Your task to perform on an android device: turn on wifi Image 0: 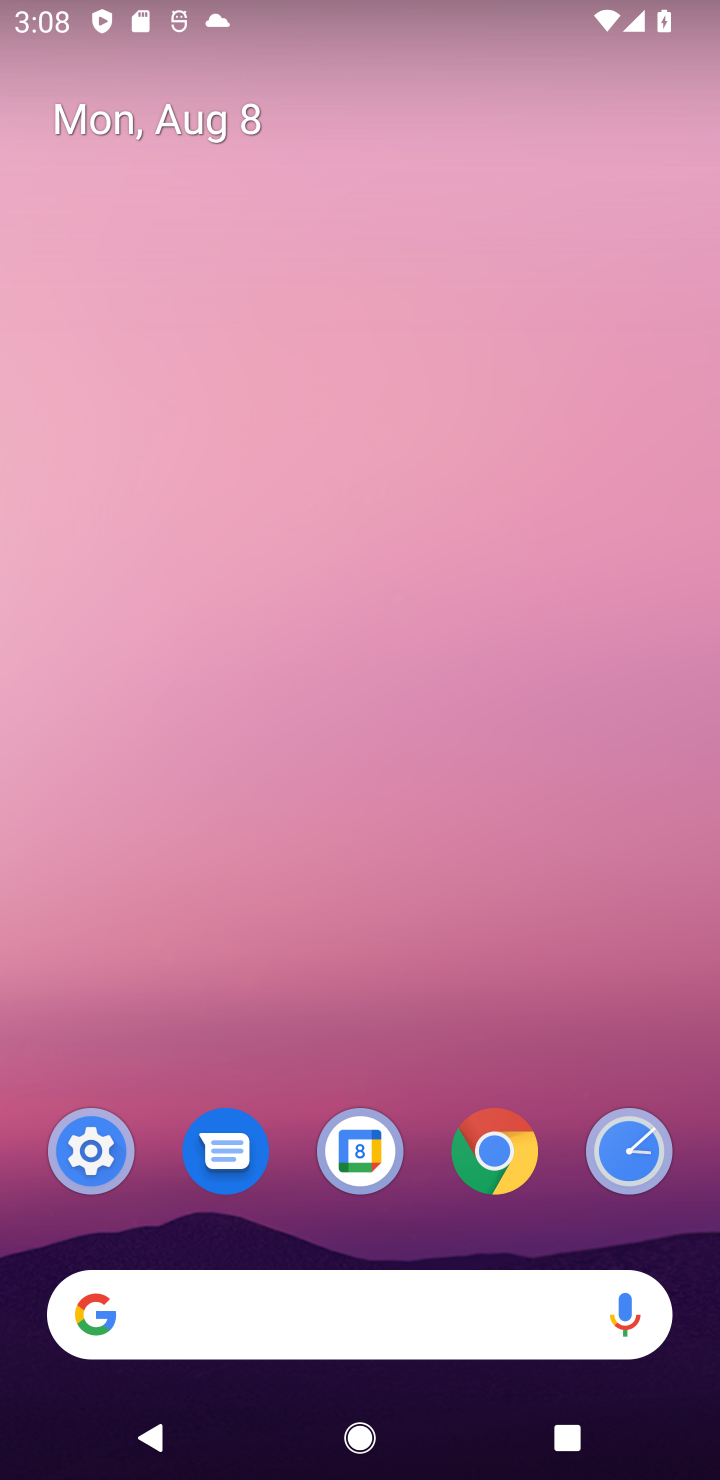
Step 0: click (82, 1141)
Your task to perform on an android device: turn on wifi Image 1: 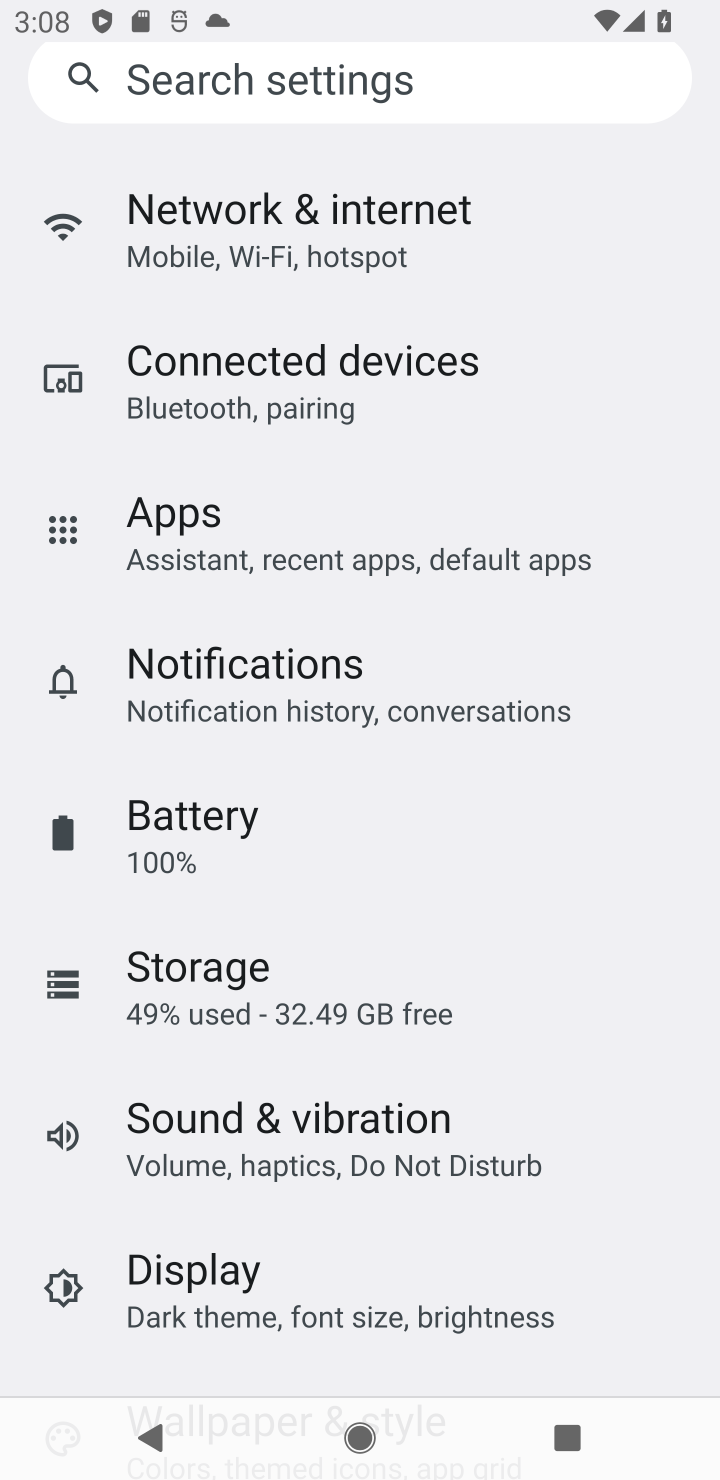
Step 1: click (352, 232)
Your task to perform on an android device: turn on wifi Image 2: 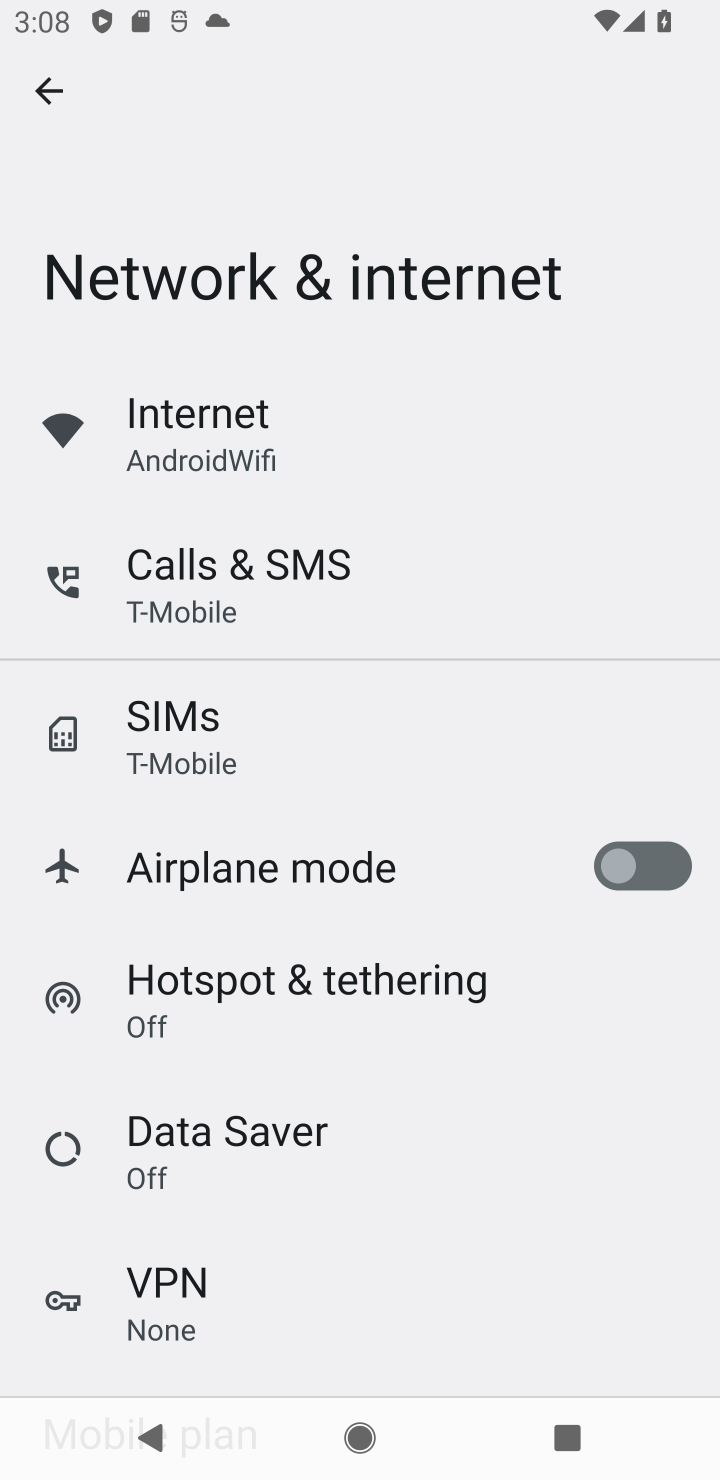
Step 2: click (230, 462)
Your task to perform on an android device: turn on wifi Image 3: 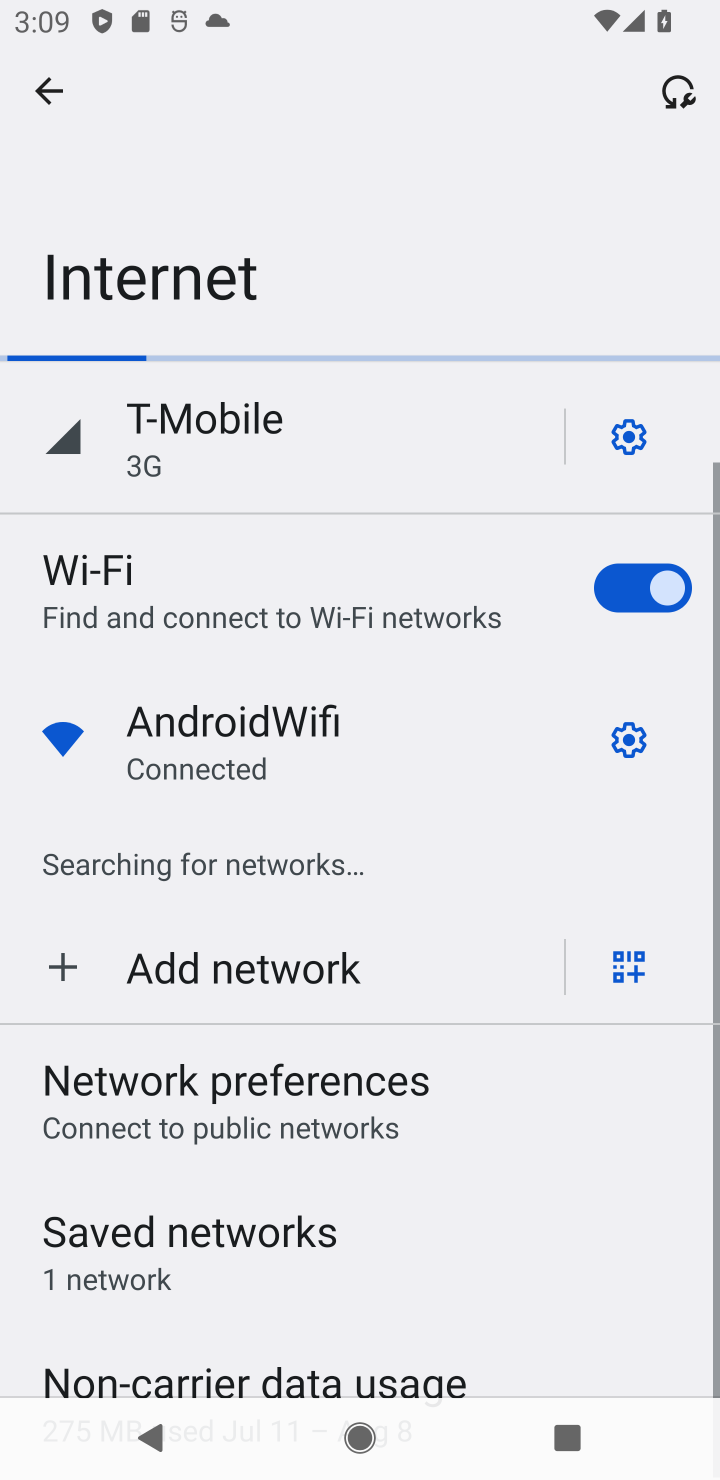
Step 3: task complete